Your task to perform on an android device: change the clock display to show seconds Image 0: 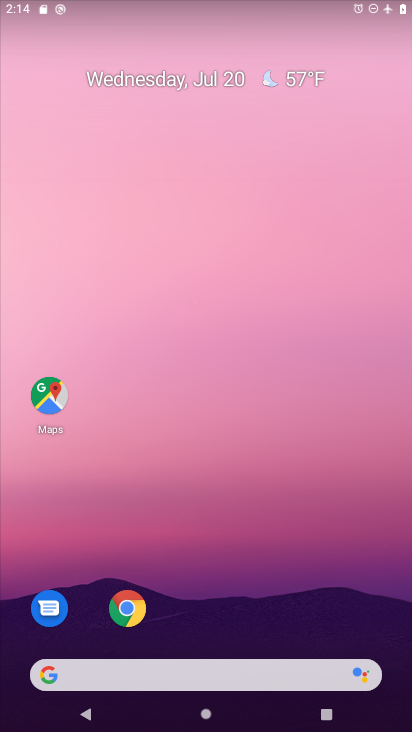
Step 0: drag from (188, 595) to (278, 297)
Your task to perform on an android device: change the clock display to show seconds Image 1: 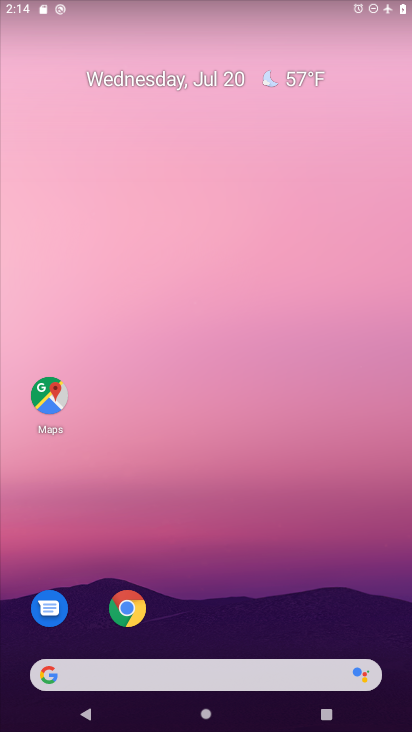
Step 1: drag from (257, 730) to (371, 217)
Your task to perform on an android device: change the clock display to show seconds Image 2: 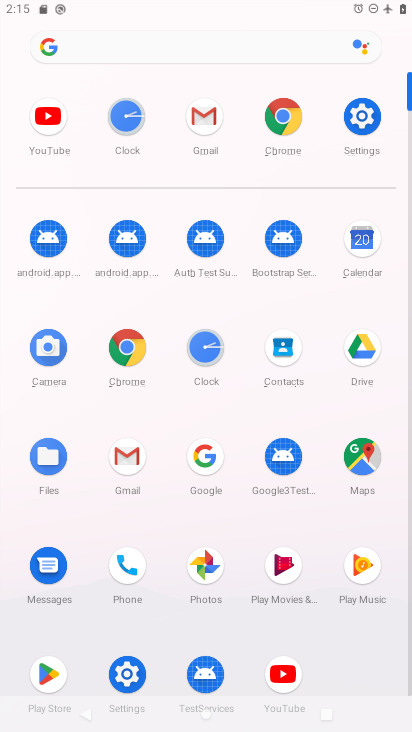
Step 2: click (202, 357)
Your task to perform on an android device: change the clock display to show seconds Image 3: 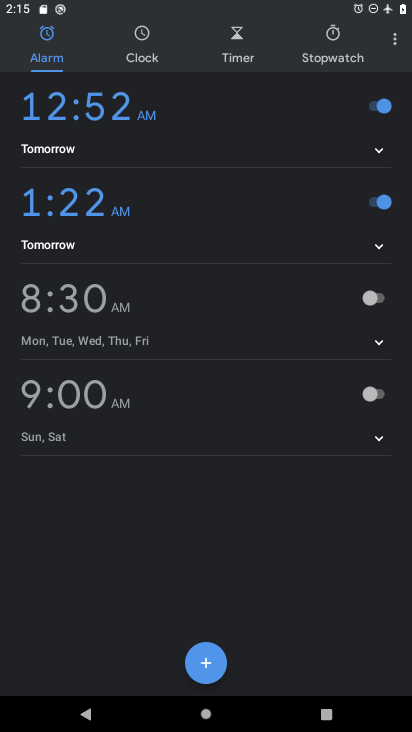
Step 3: click (395, 40)
Your task to perform on an android device: change the clock display to show seconds Image 4: 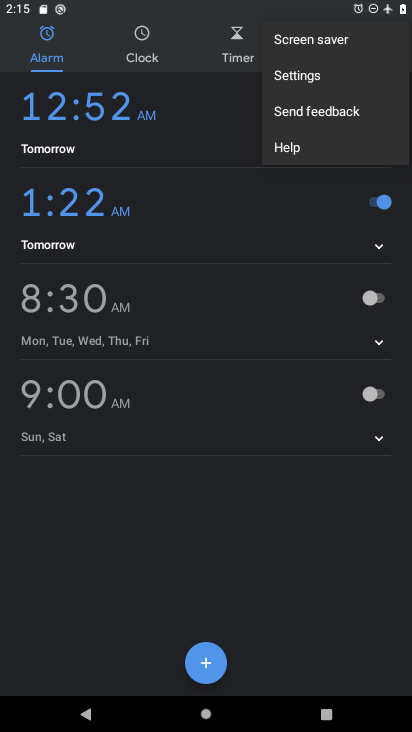
Step 4: click (335, 79)
Your task to perform on an android device: change the clock display to show seconds Image 5: 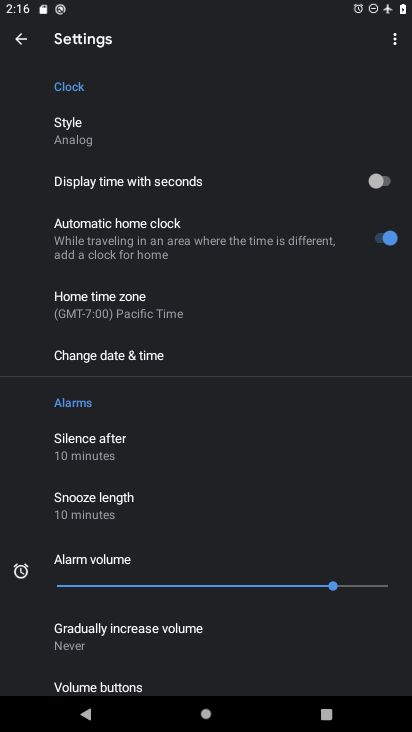
Step 5: click (378, 175)
Your task to perform on an android device: change the clock display to show seconds Image 6: 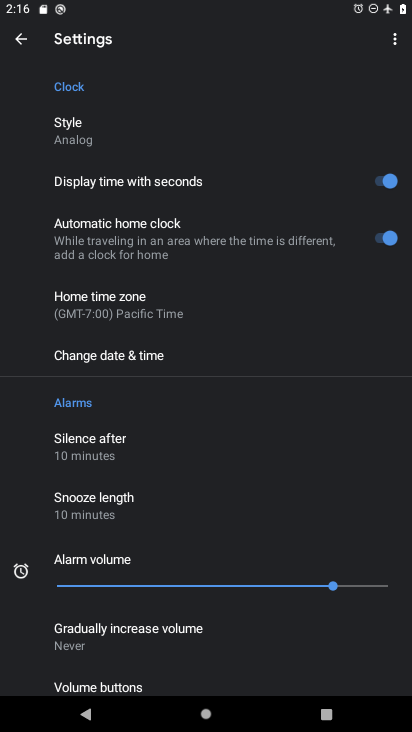
Step 6: task complete